Your task to perform on an android device: Open Google Image 0: 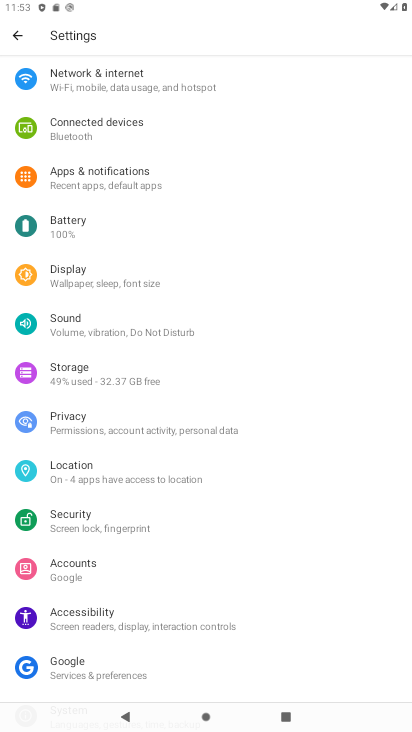
Step 0: press home button
Your task to perform on an android device: Open Google Image 1: 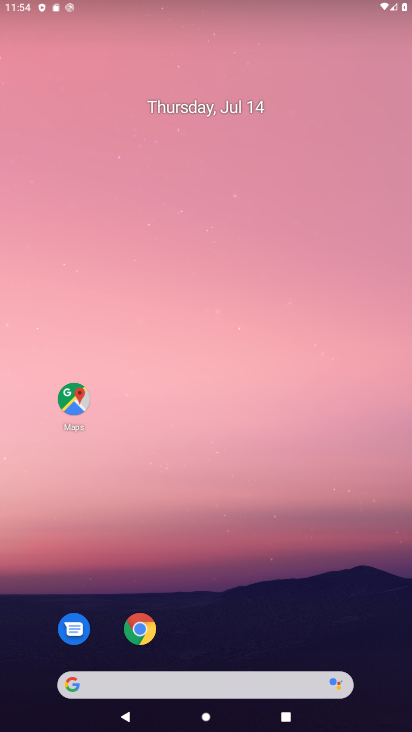
Step 1: drag from (324, 635) to (255, 66)
Your task to perform on an android device: Open Google Image 2: 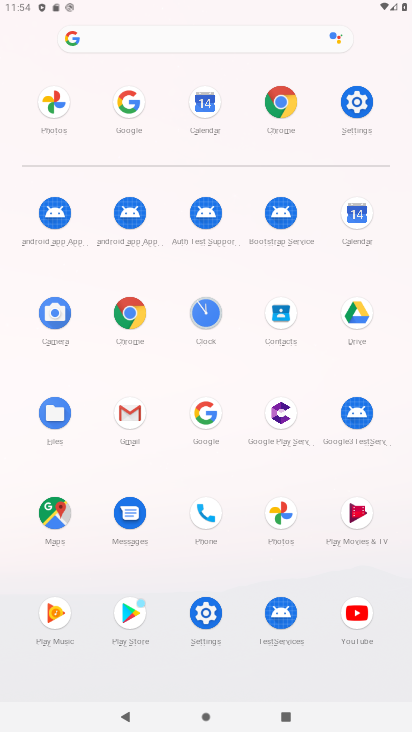
Step 2: click (207, 420)
Your task to perform on an android device: Open Google Image 3: 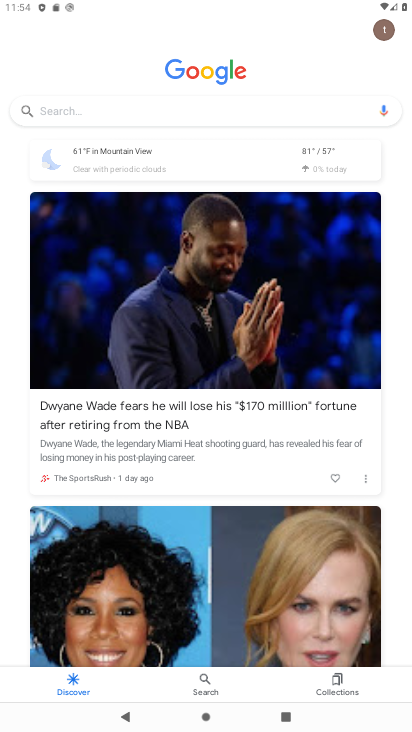
Step 3: task complete